Your task to perform on an android device: toggle javascript in the chrome app Image 0: 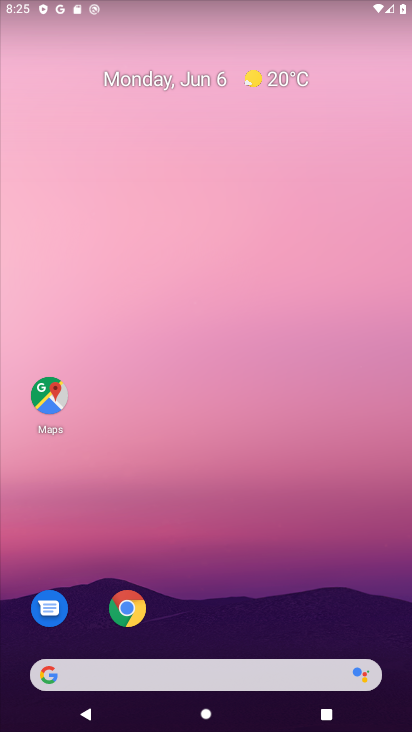
Step 0: click (129, 615)
Your task to perform on an android device: toggle javascript in the chrome app Image 1: 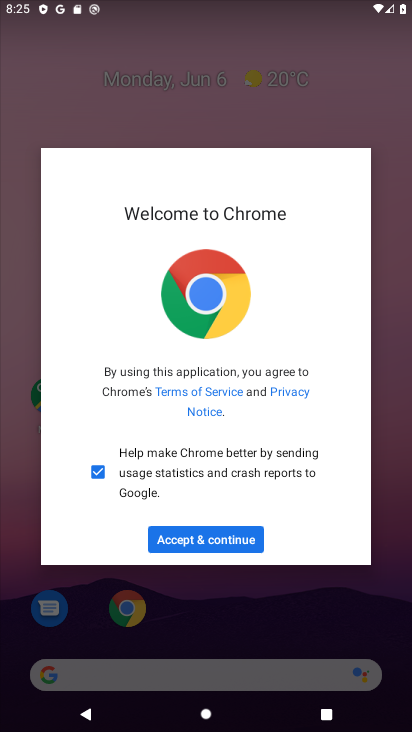
Step 1: task complete